Your task to perform on an android device: allow cookies in the chrome app Image 0: 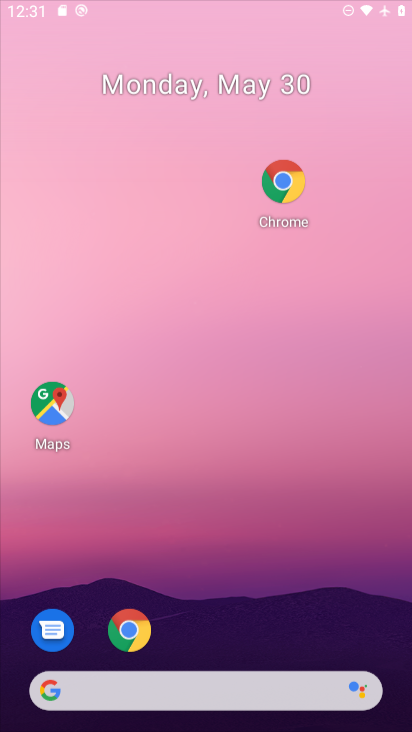
Step 0: drag from (309, 715) to (252, 205)
Your task to perform on an android device: allow cookies in the chrome app Image 1: 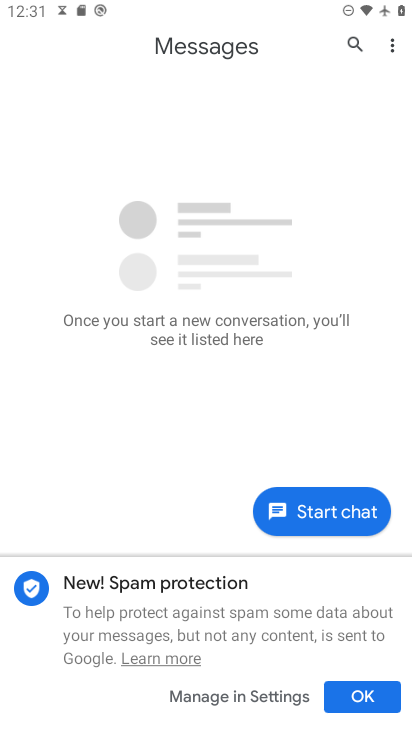
Step 1: press back button
Your task to perform on an android device: allow cookies in the chrome app Image 2: 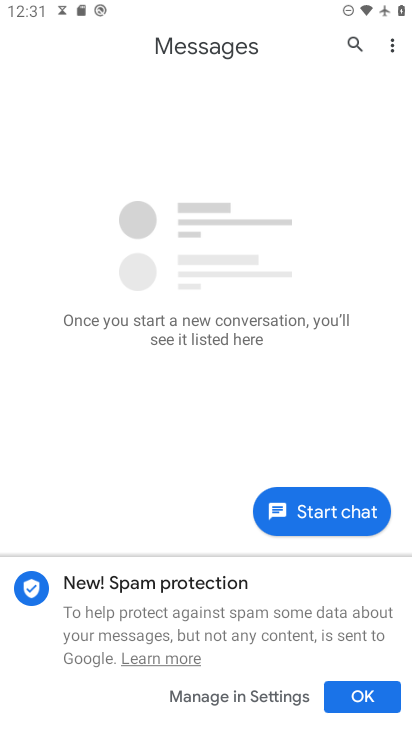
Step 2: press back button
Your task to perform on an android device: allow cookies in the chrome app Image 3: 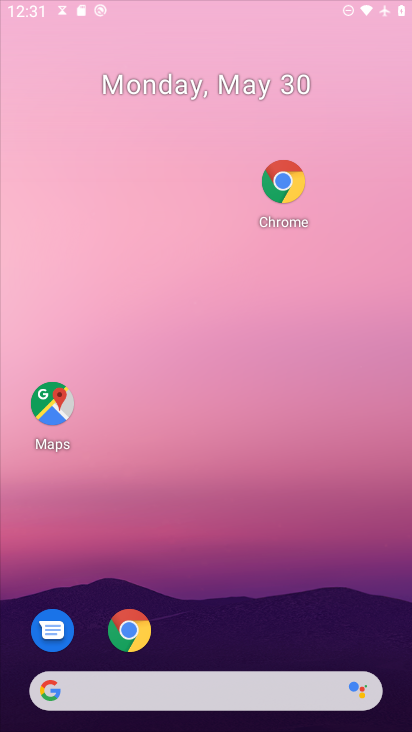
Step 3: press back button
Your task to perform on an android device: allow cookies in the chrome app Image 4: 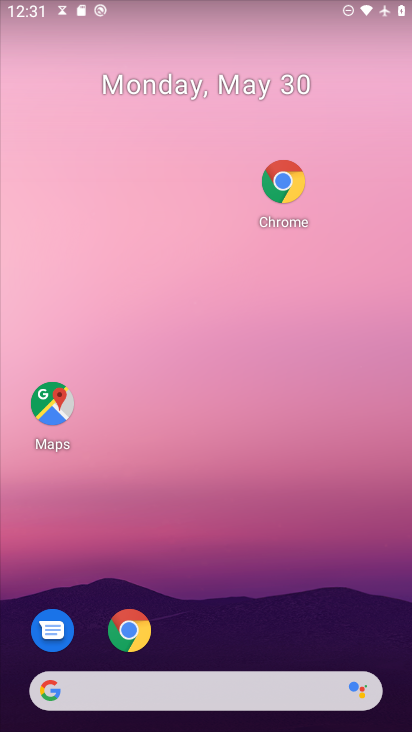
Step 4: drag from (330, 720) to (172, 136)
Your task to perform on an android device: allow cookies in the chrome app Image 5: 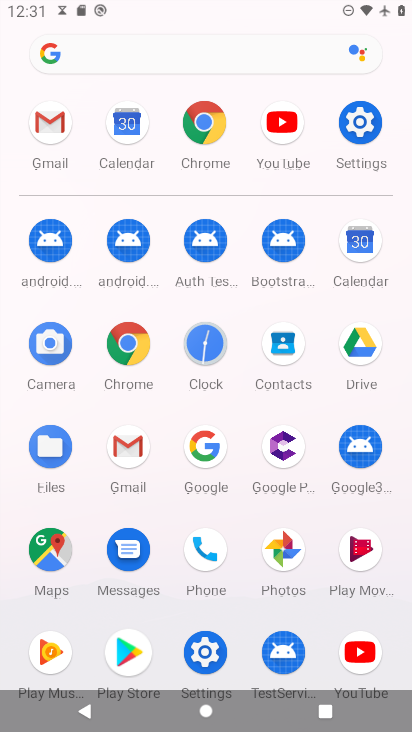
Step 5: click (191, 119)
Your task to perform on an android device: allow cookies in the chrome app Image 6: 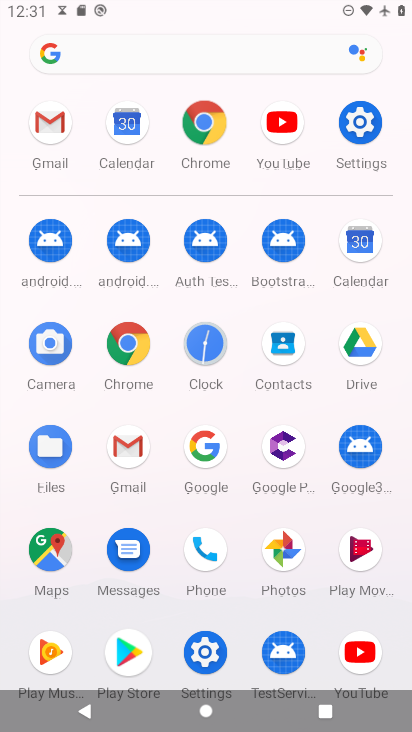
Step 6: click (202, 120)
Your task to perform on an android device: allow cookies in the chrome app Image 7: 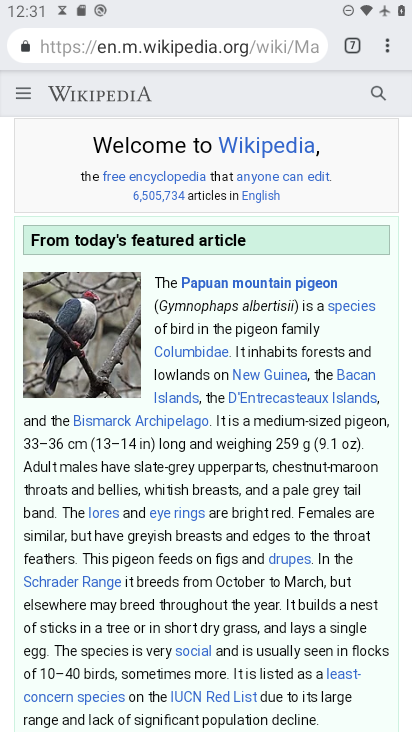
Step 7: drag from (388, 44) to (248, 539)
Your task to perform on an android device: allow cookies in the chrome app Image 8: 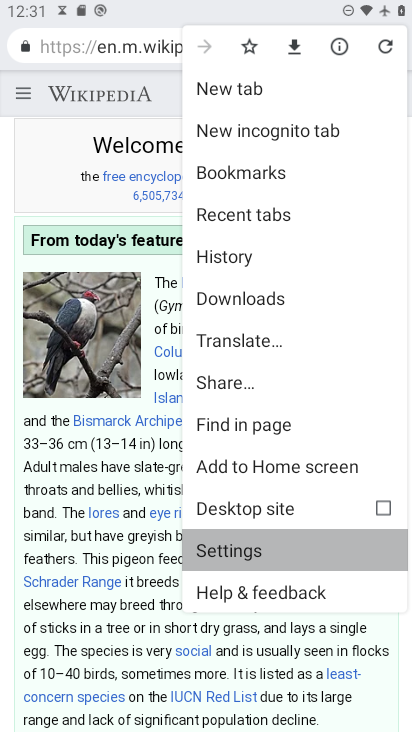
Step 8: click (241, 543)
Your task to perform on an android device: allow cookies in the chrome app Image 9: 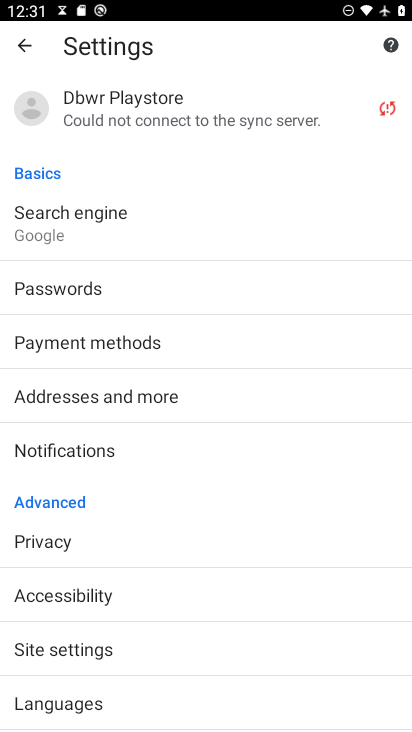
Step 9: drag from (38, 599) to (10, 331)
Your task to perform on an android device: allow cookies in the chrome app Image 10: 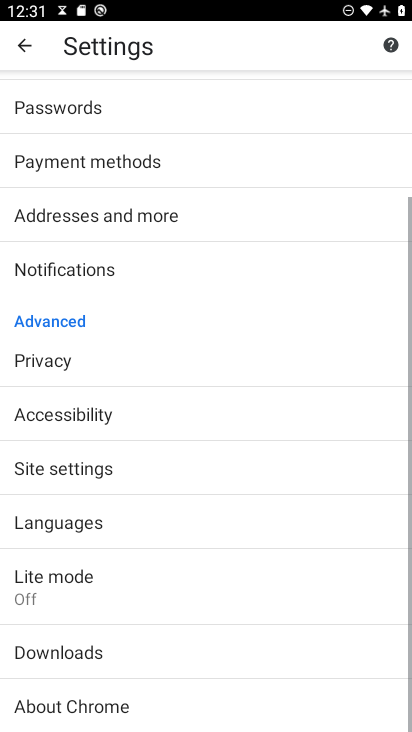
Step 10: drag from (58, 463) to (87, 136)
Your task to perform on an android device: allow cookies in the chrome app Image 11: 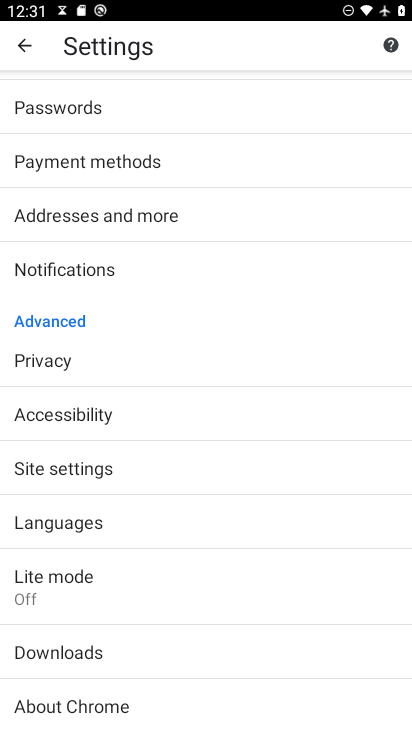
Step 11: click (55, 483)
Your task to perform on an android device: allow cookies in the chrome app Image 12: 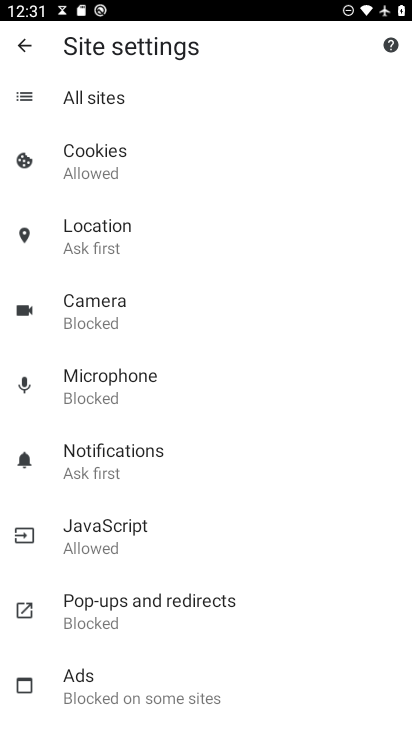
Step 12: click (87, 157)
Your task to perform on an android device: allow cookies in the chrome app Image 13: 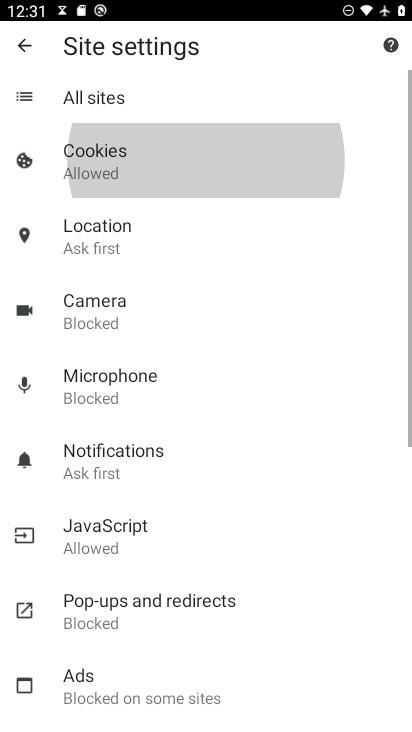
Step 13: click (96, 153)
Your task to perform on an android device: allow cookies in the chrome app Image 14: 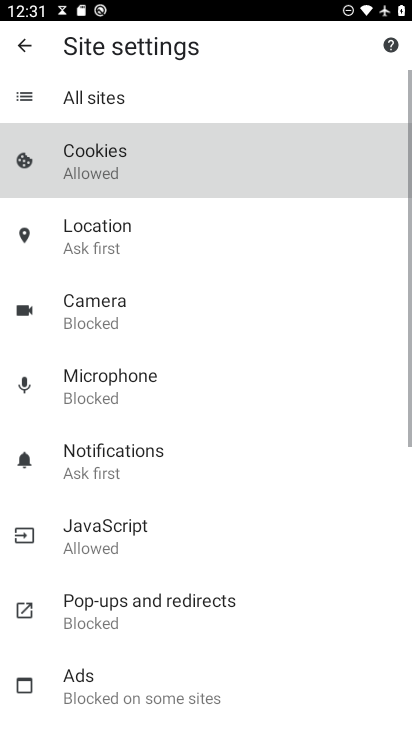
Step 14: click (99, 153)
Your task to perform on an android device: allow cookies in the chrome app Image 15: 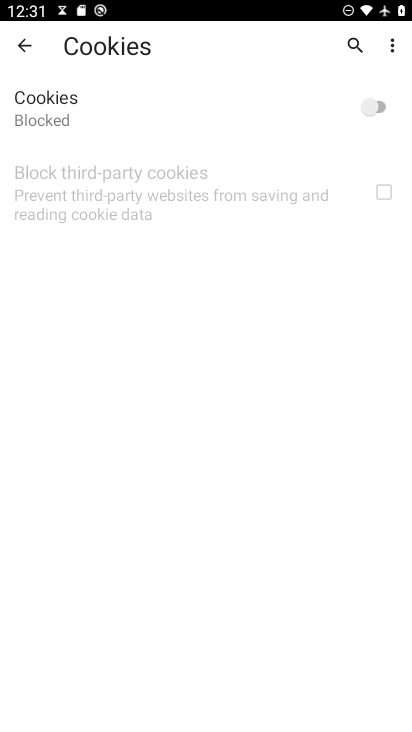
Step 15: click (369, 100)
Your task to perform on an android device: allow cookies in the chrome app Image 16: 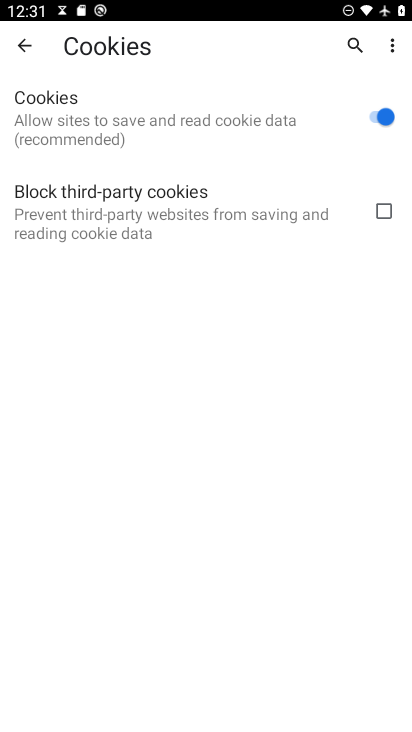
Step 16: task complete